Your task to perform on an android device: turn off airplane mode Image 0: 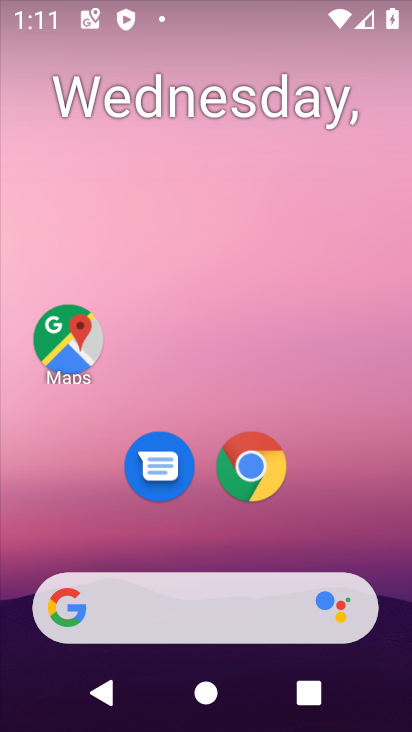
Step 0: drag from (289, 14) to (309, 533)
Your task to perform on an android device: turn off airplane mode Image 1: 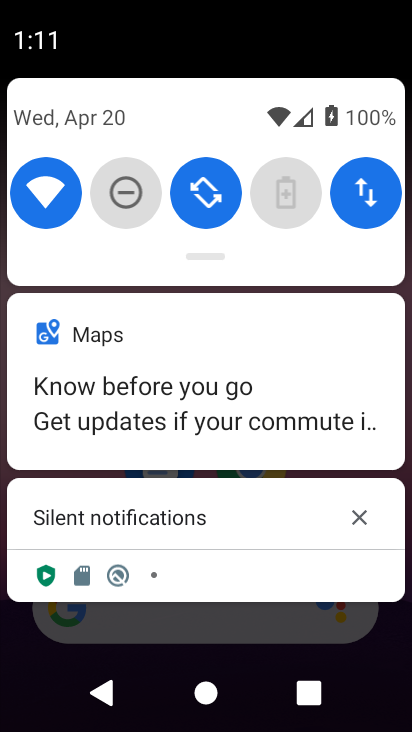
Step 1: drag from (183, 103) to (242, 593)
Your task to perform on an android device: turn off airplane mode Image 2: 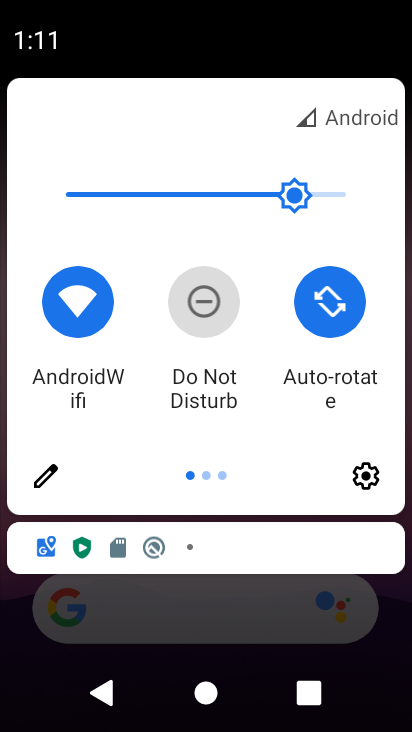
Step 2: click (362, 470)
Your task to perform on an android device: turn off airplane mode Image 3: 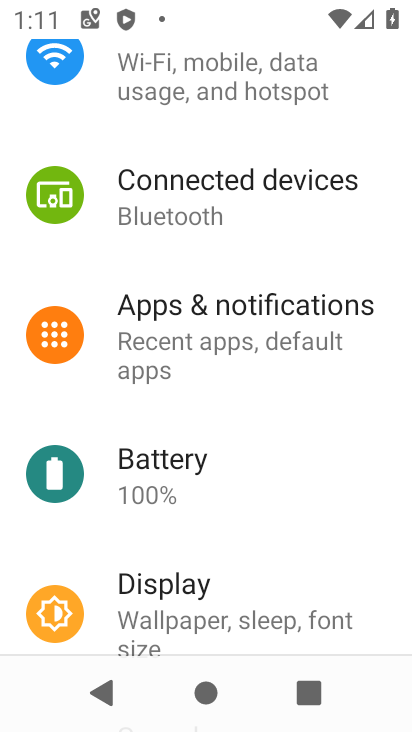
Step 3: click (200, 85)
Your task to perform on an android device: turn off airplane mode Image 4: 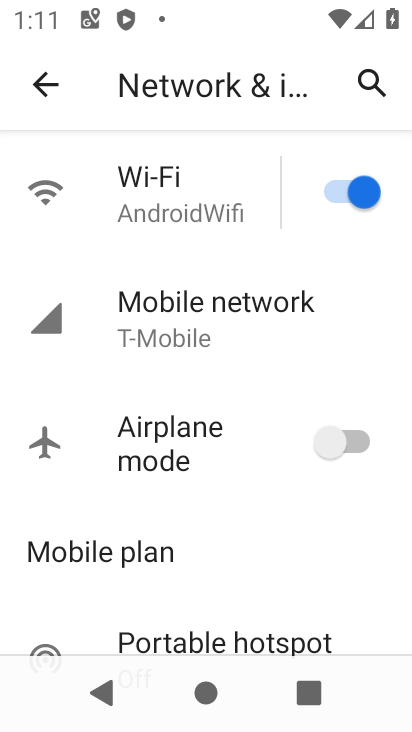
Step 4: task complete